Your task to perform on an android device: turn on the 24-hour format for clock Image 0: 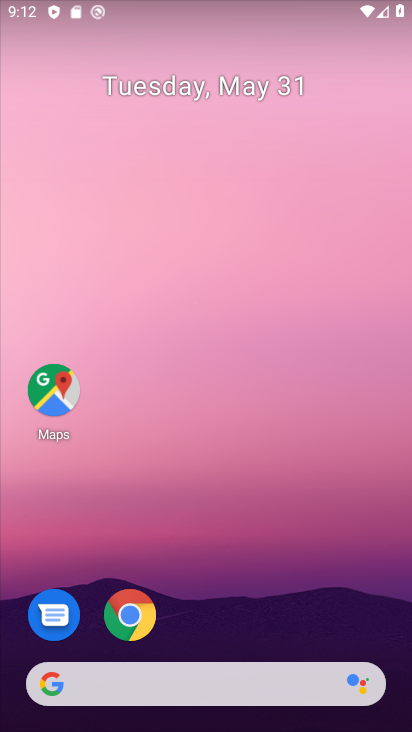
Step 0: drag from (293, 673) to (324, 169)
Your task to perform on an android device: turn on the 24-hour format for clock Image 1: 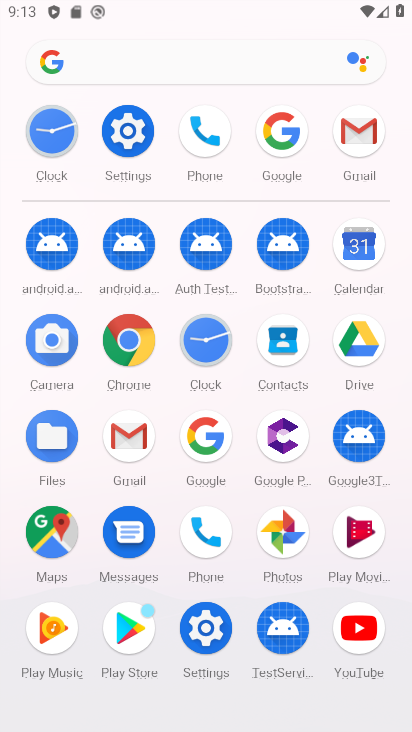
Step 1: click (206, 340)
Your task to perform on an android device: turn on the 24-hour format for clock Image 2: 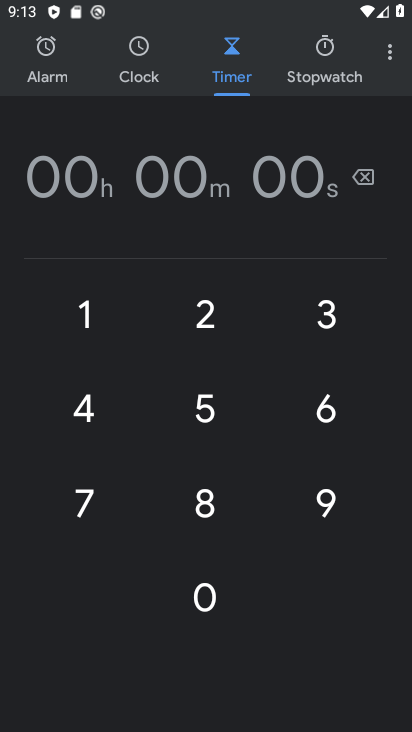
Step 2: click (395, 49)
Your task to perform on an android device: turn on the 24-hour format for clock Image 3: 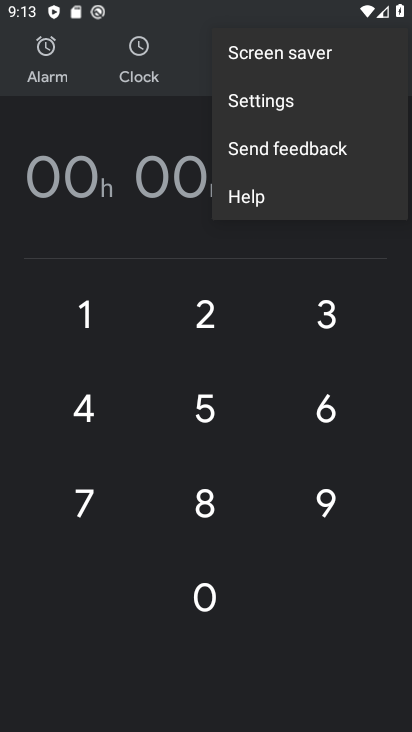
Step 3: click (315, 97)
Your task to perform on an android device: turn on the 24-hour format for clock Image 4: 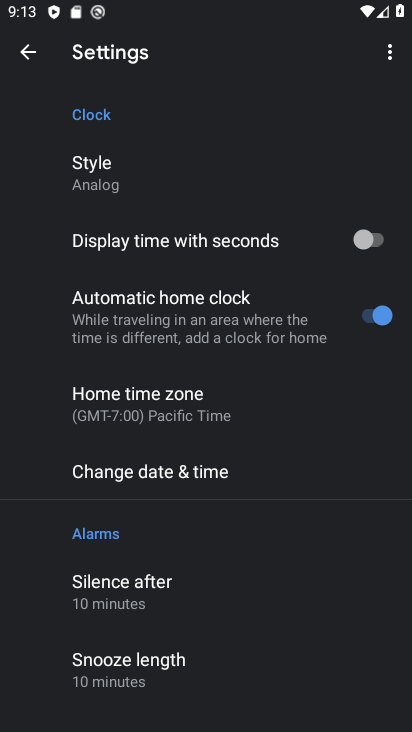
Step 4: click (208, 472)
Your task to perform on an android device: turn on the 24-hour format for clock Image 5: 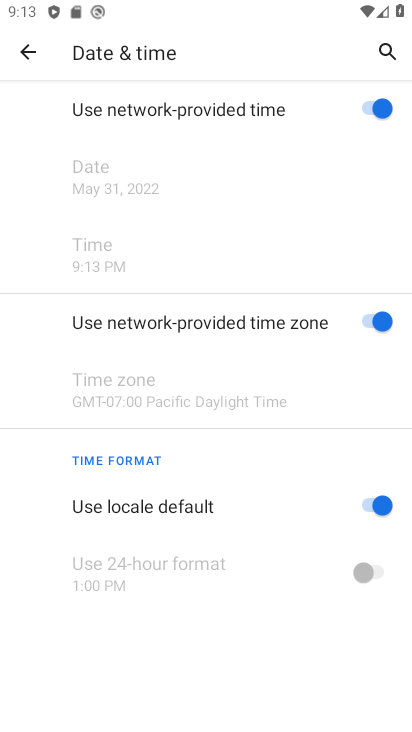
Step 5: click (374, 567)
Your task to perform on an android device: turn on the 24-hour format for clock Image 6: 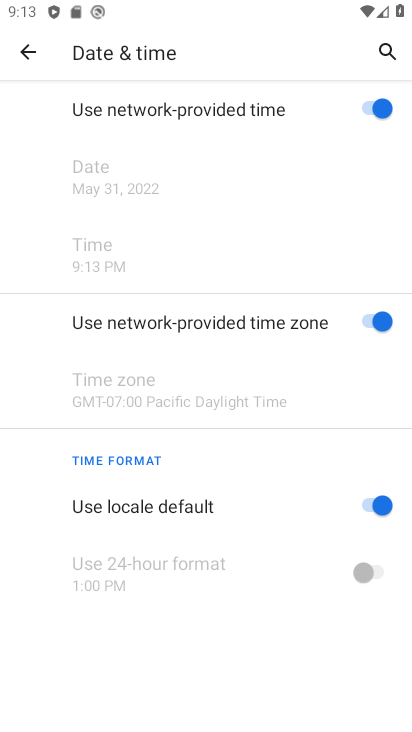
Step 6: click (373, 504)
Your task to perform on an android device: turn on the 24-hour format for clock Image 7: 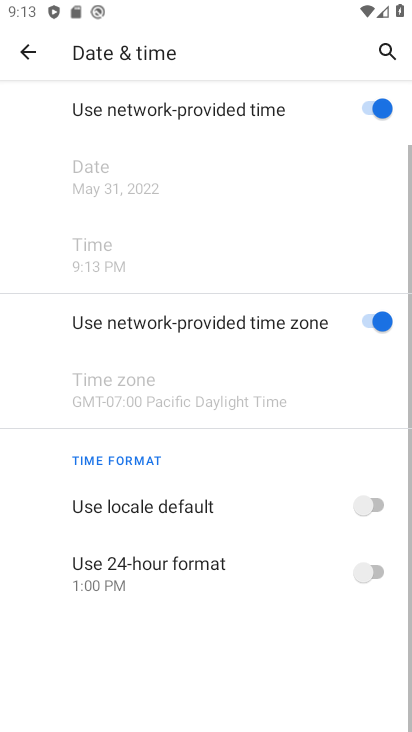
Step 7: click (379, 574)
Your task to perform on an android device: turn on the 24-hour format for clock Image 8: 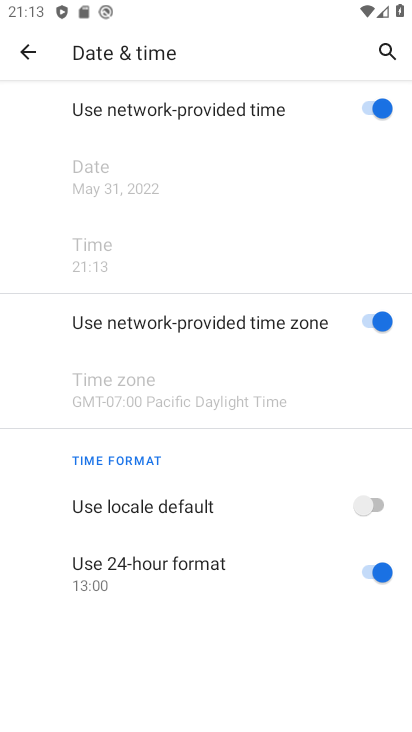
Step 8: task complete